Your task to perform on an android device: Search for seafood restaurants on Google Maps Image 0: 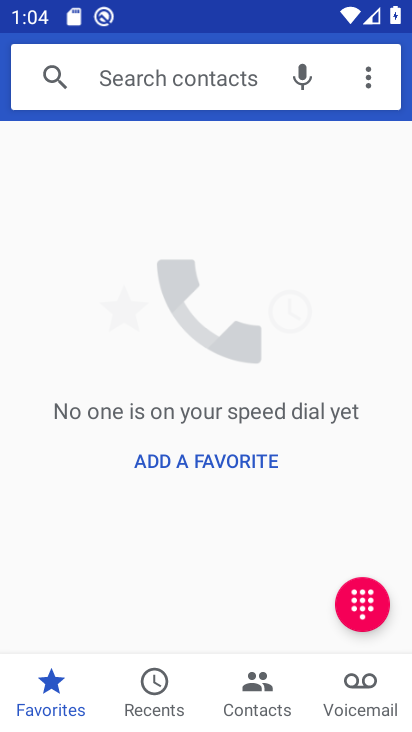
Step 0: press back button
Your task to perform on an android device: Search for seafood restaurants on Google Maps Image 1: 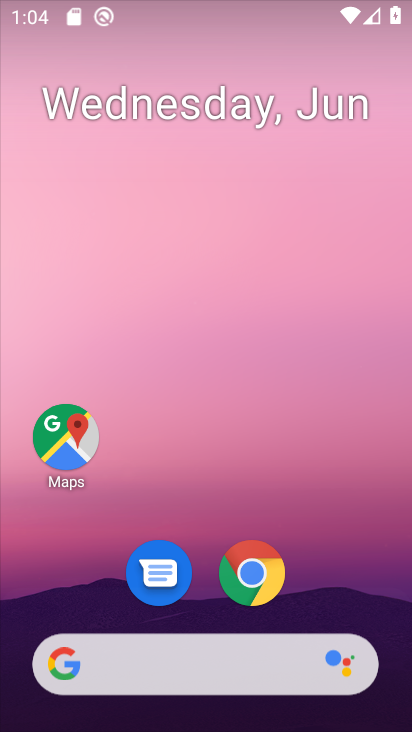
Step 1: click (45, 438)
Your task to perform on an android device: Search for seafood restaurants on Google Maps Image 2: 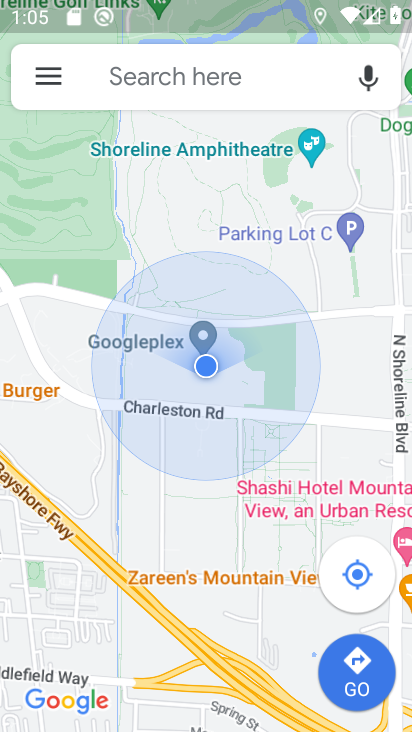
Step 2: click (194, 82)
Your task to perform on an android device: Search for seafood restaurants on Google Maps Image 3: 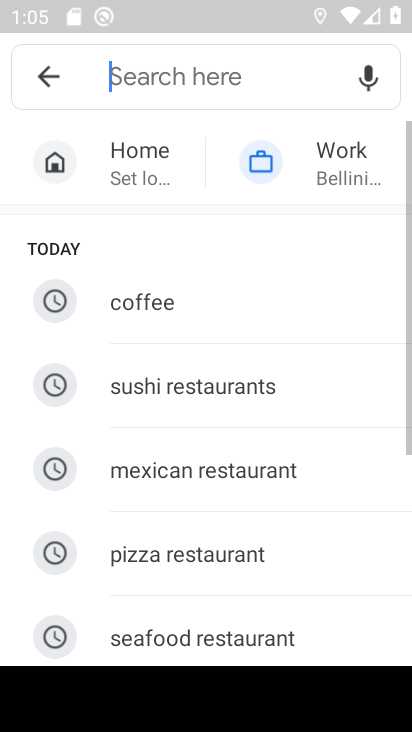
Step 3: click (155, 637)
Your task to perform on an android device: Search for seafood restaurants on Google Maps Image 4: 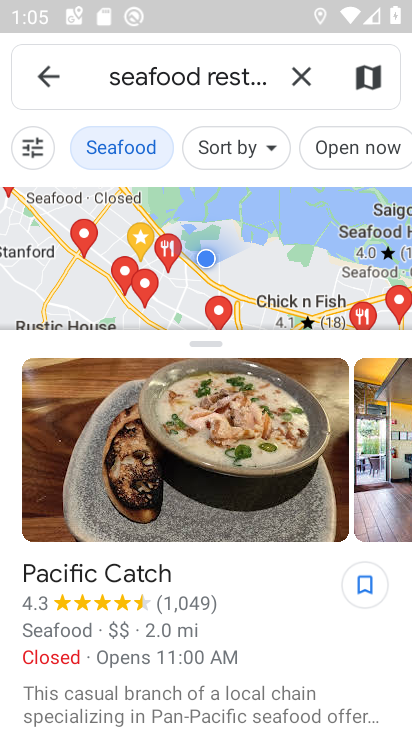
Step 4: task complete